Your task to perform on an android device: change the clock display to analog Image 0: 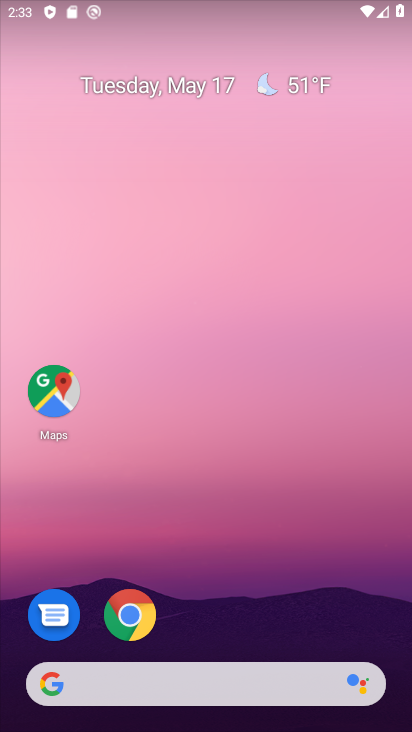
Step 0: press home button
Your task to perform on an android device: change the clock display to analog Image 1: 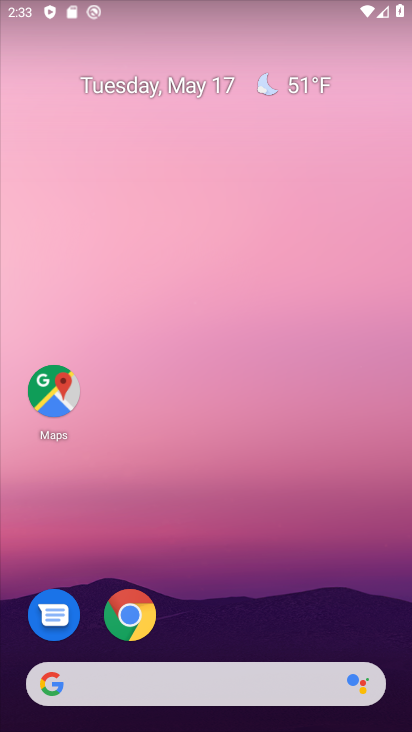
Step 1: drag from (215, 645) to (247, 39)
Your task to perform on an android device: change the clock display to analog Image 2: 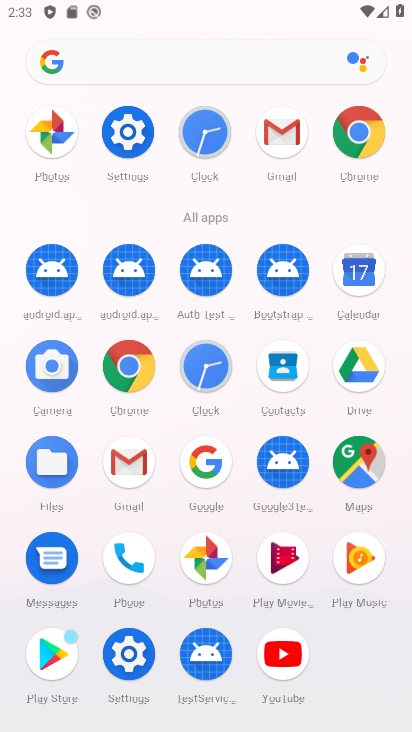
Step 2: click (206, 126)
Your task to perform on an android device: change the clock display to analog Image 3: 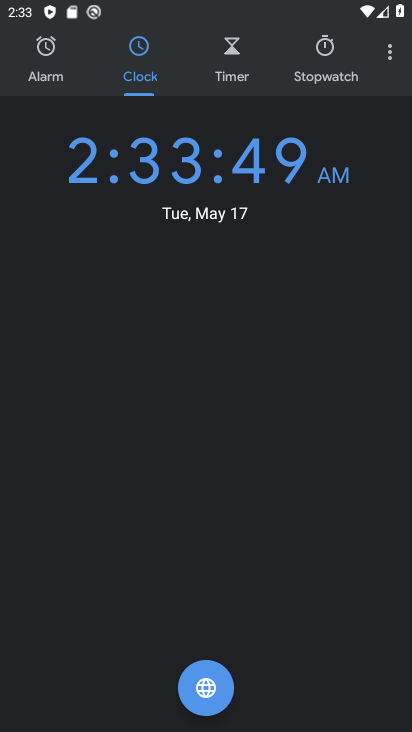
Step 3: click (389, 50)
Your task to perform on an android device: change the clock display to analog Image 4: 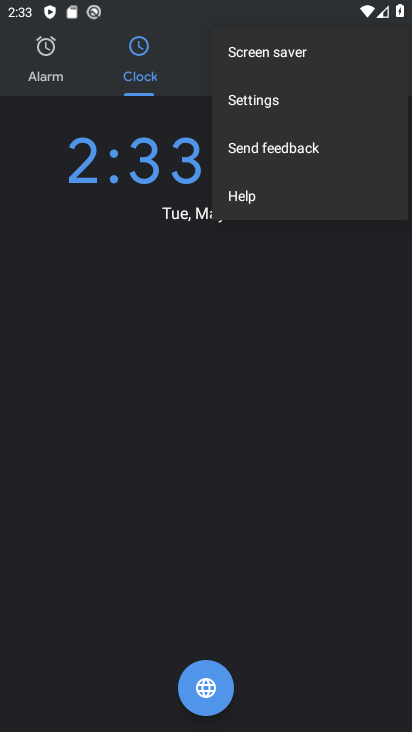
Step 4: click (277, 95)
Your task to perform on an android device: change the clock display to analog Image 5: 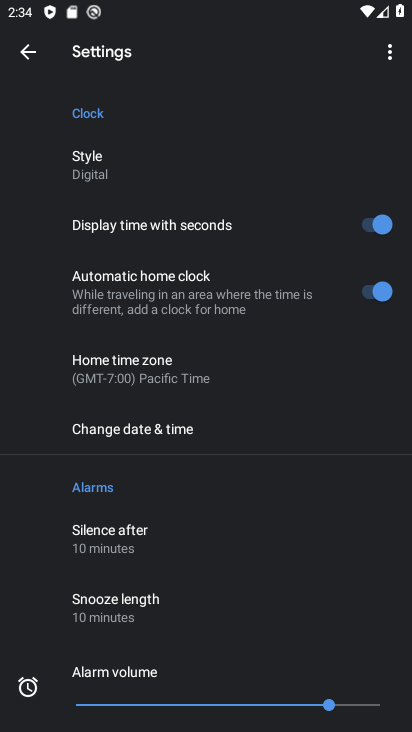
Step 5: click (145, 167)
Your task to perform on an android device: change the clock display to analog Image 6: 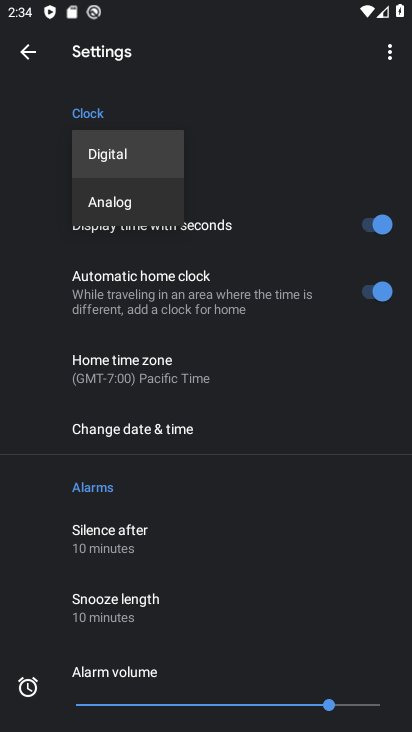
Step 6: click (145, 209)
Your task to perform on an android device: change the clock display to analog Image 7: 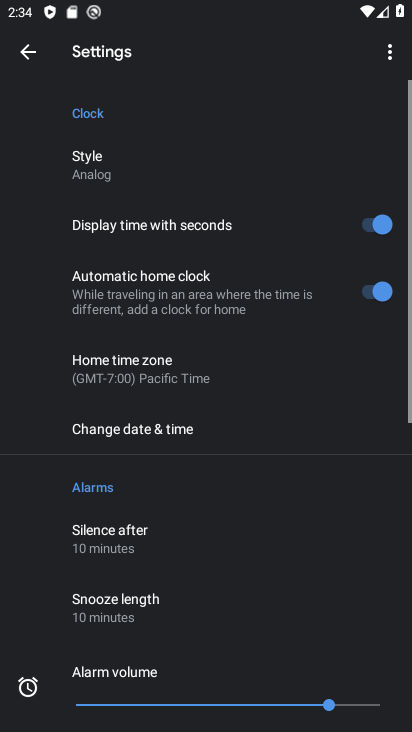
Step 7: task complete